Your task to perform on an android device: open app "Venmo" Image 0: 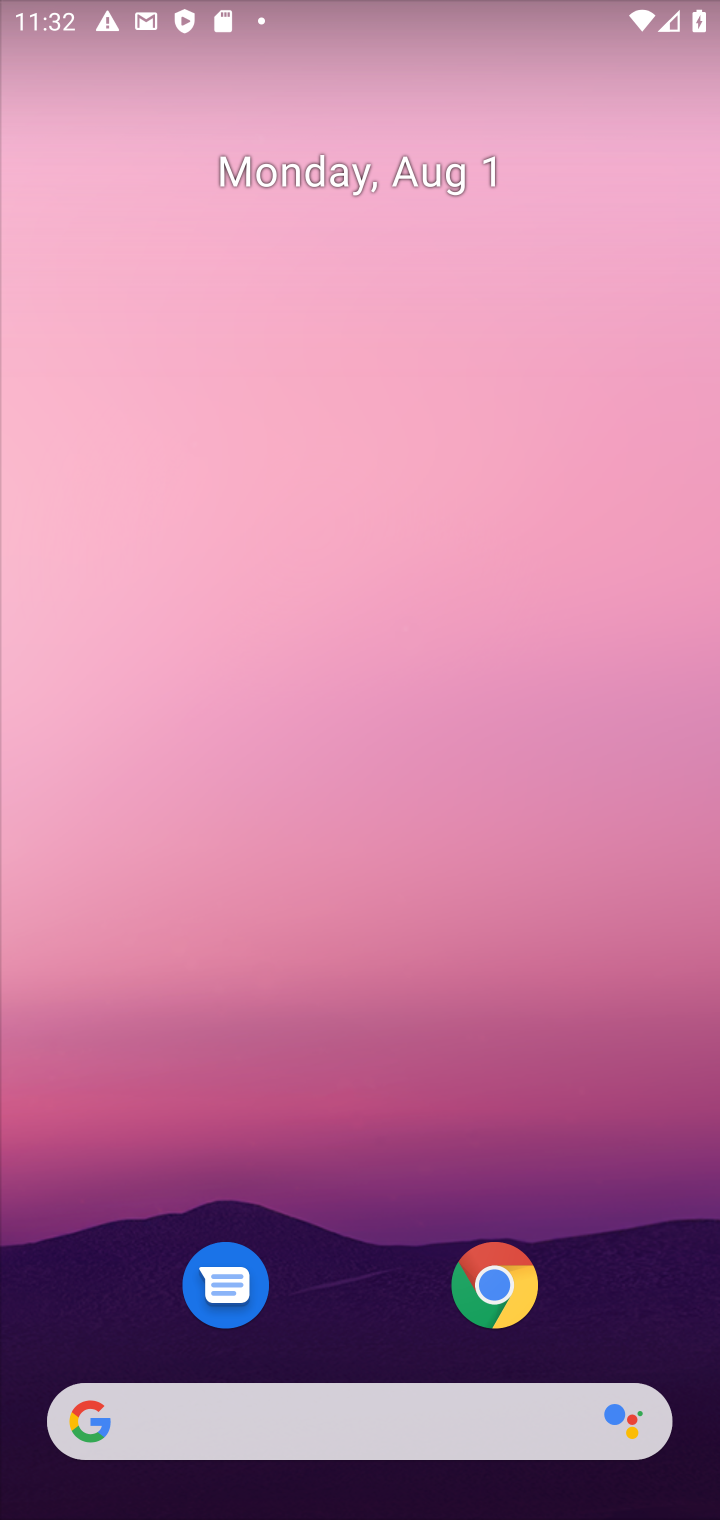
Step 0: drag from (358, 1309) to (449, 164)
Your task to perform on an android device: open app "Venmo" Image 1: 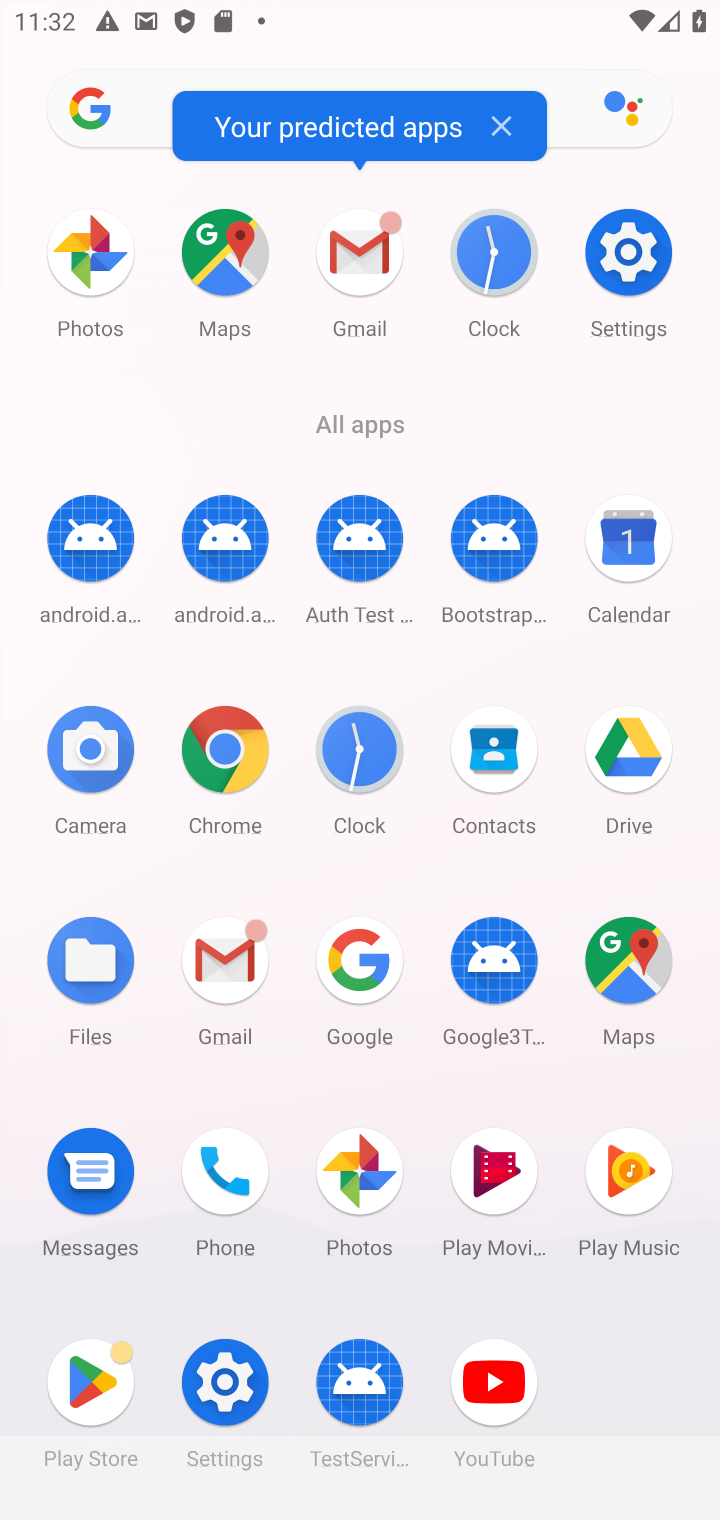
Step 1: click (105, 1365)
Your task to perform on an android device: open app "Venmo" Image 2: 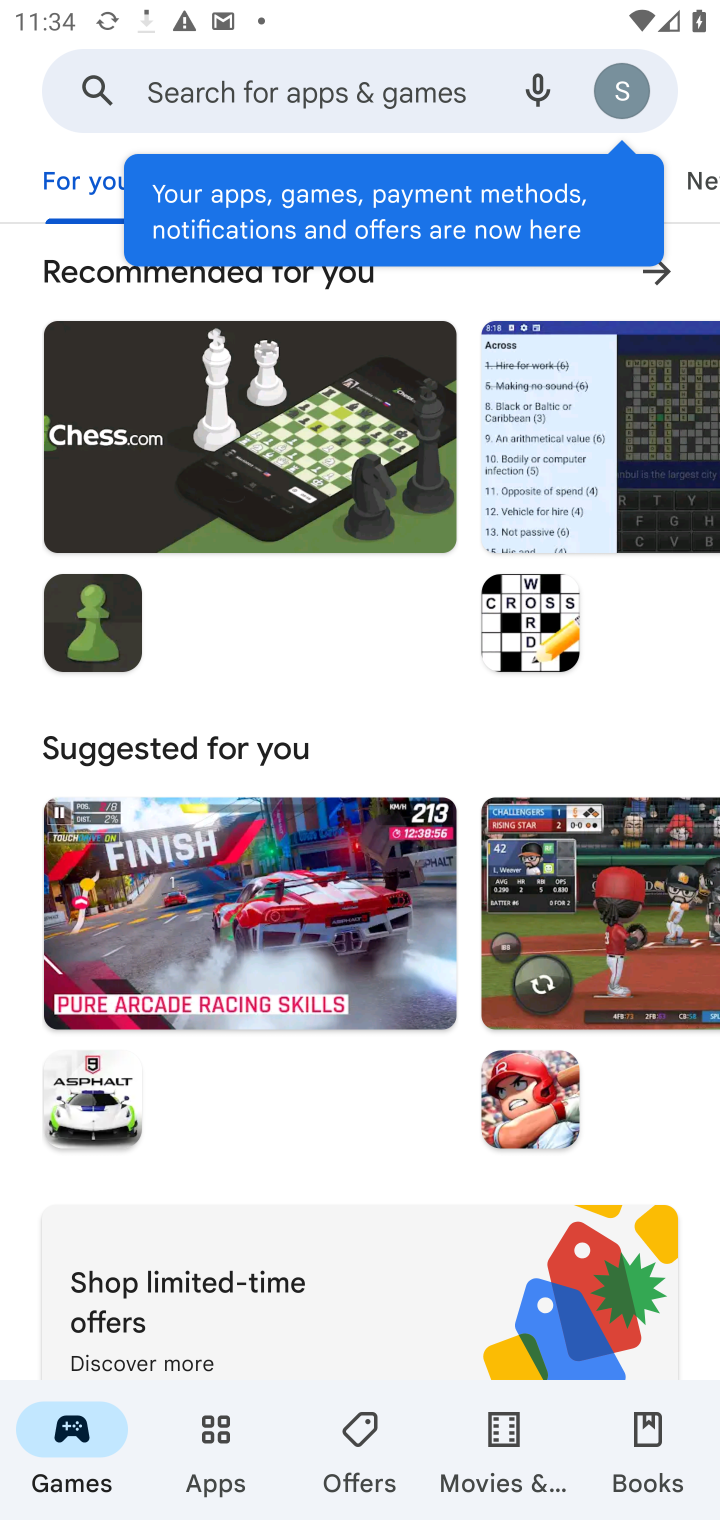
Step 2: click (231, 107)
Your task to perform on an android device: open app "Venmo" Image 3: 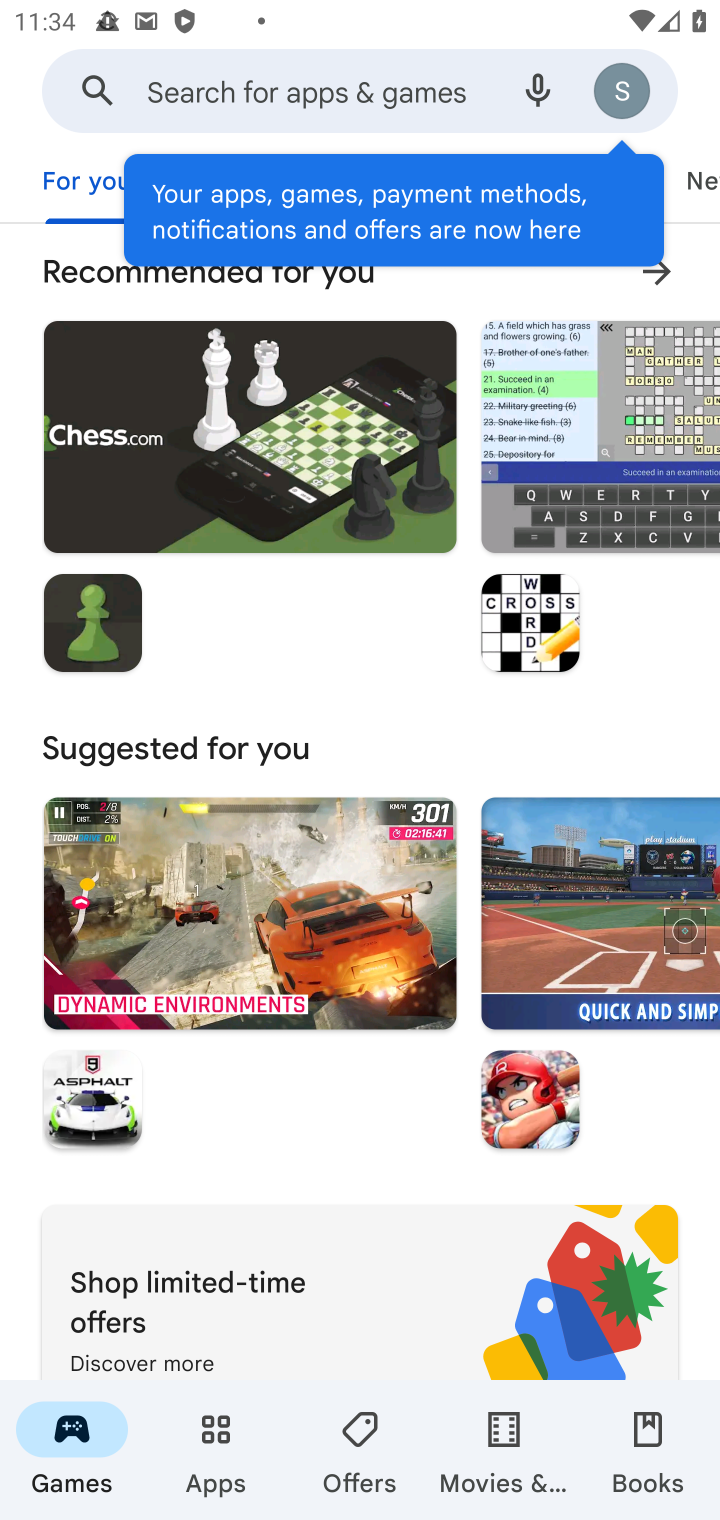
Step 3: click (228, 107)
Your task to perform on an android device: open app "Venmo" Image 4: 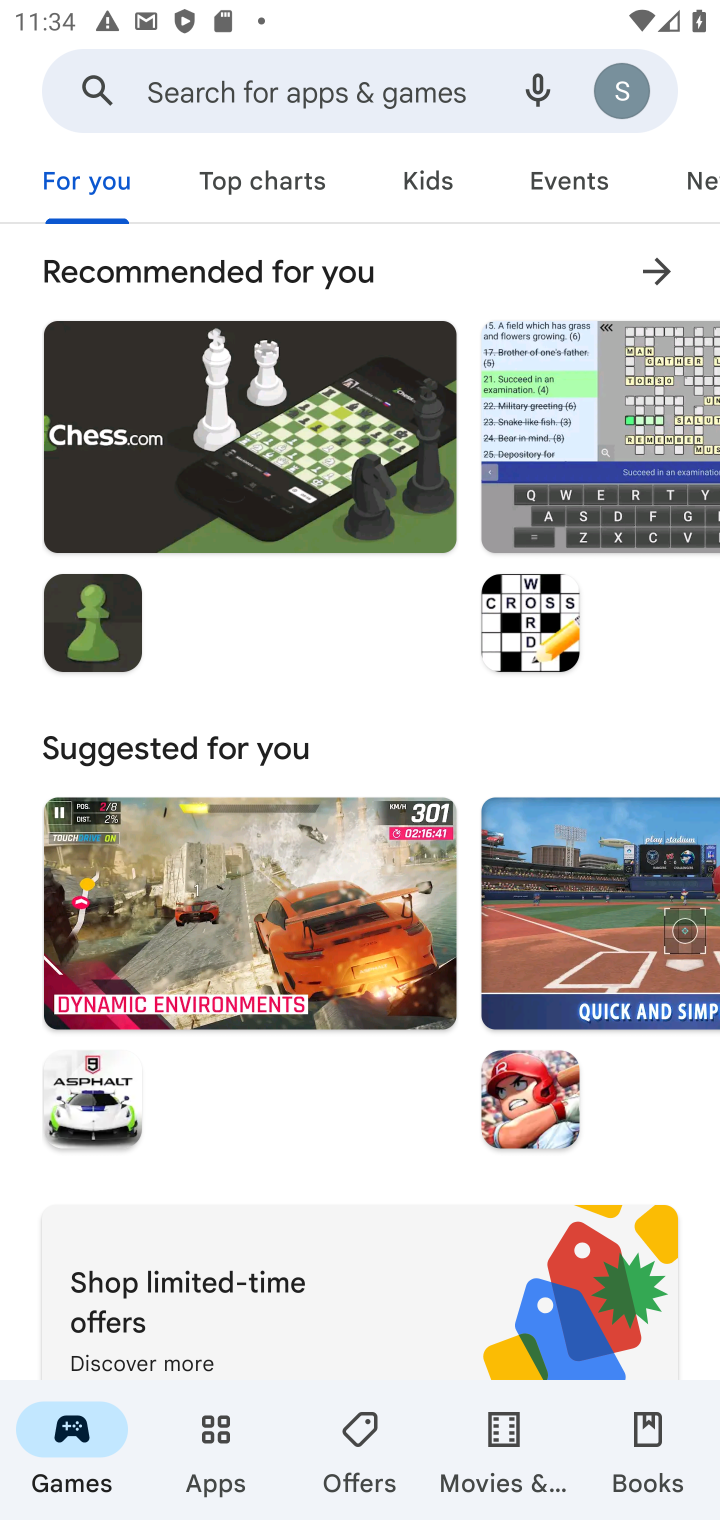
Step 4: click (200, 85)
Your task to perform on an android device: open app "Venmo" Image 5: 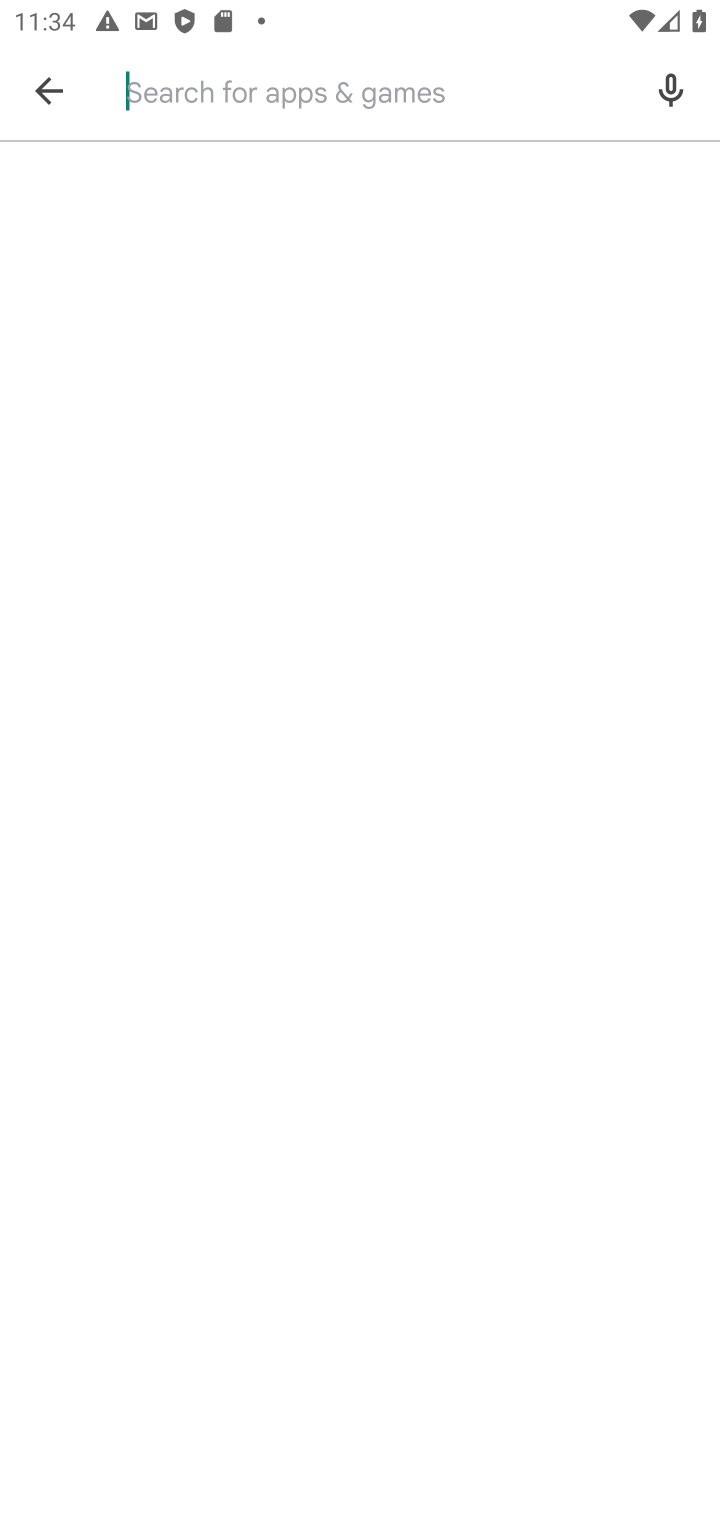
Step 5: click (200, 85)
Your task to perform on an android device: open app "Venmo" Image 6: 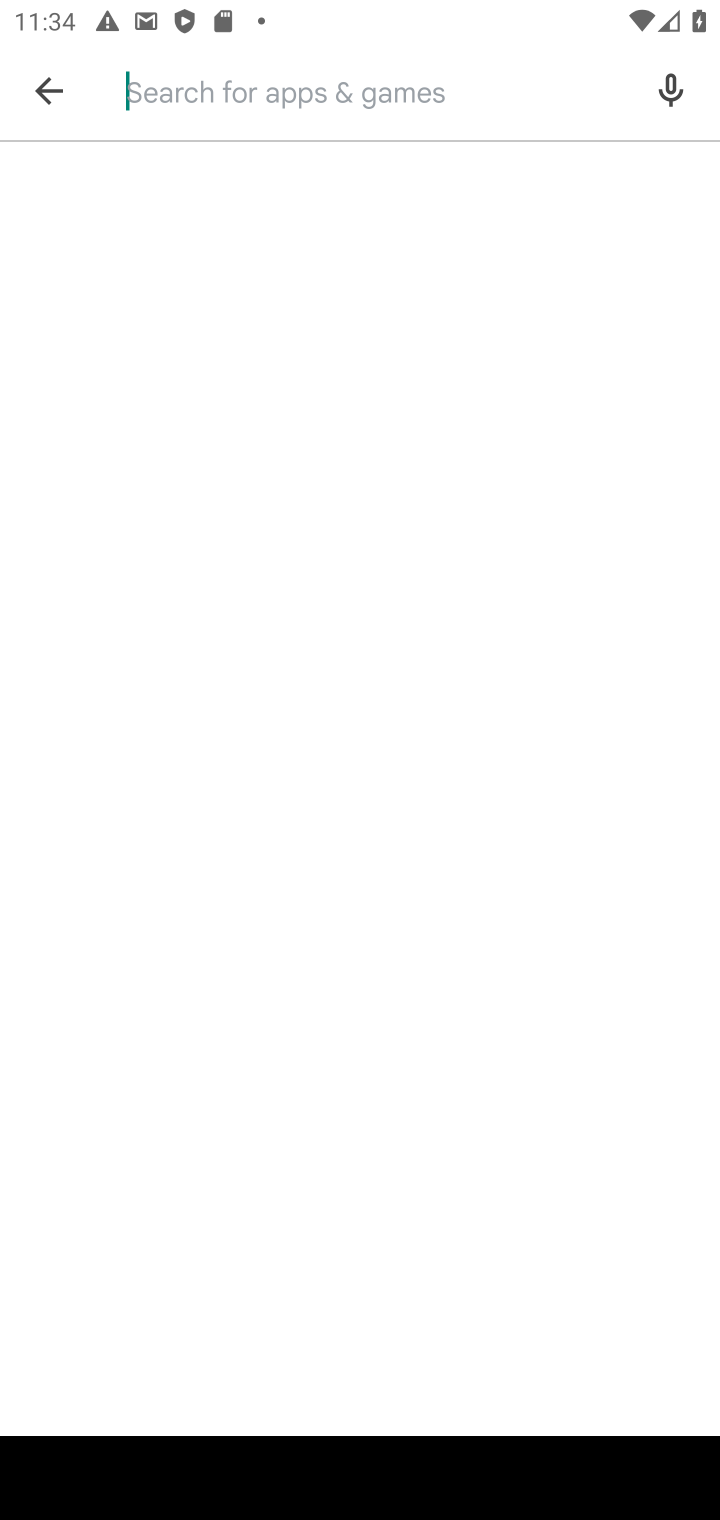
Step 6: type ""
Your task to perform on an android device: open app "Venmo" Image 7: 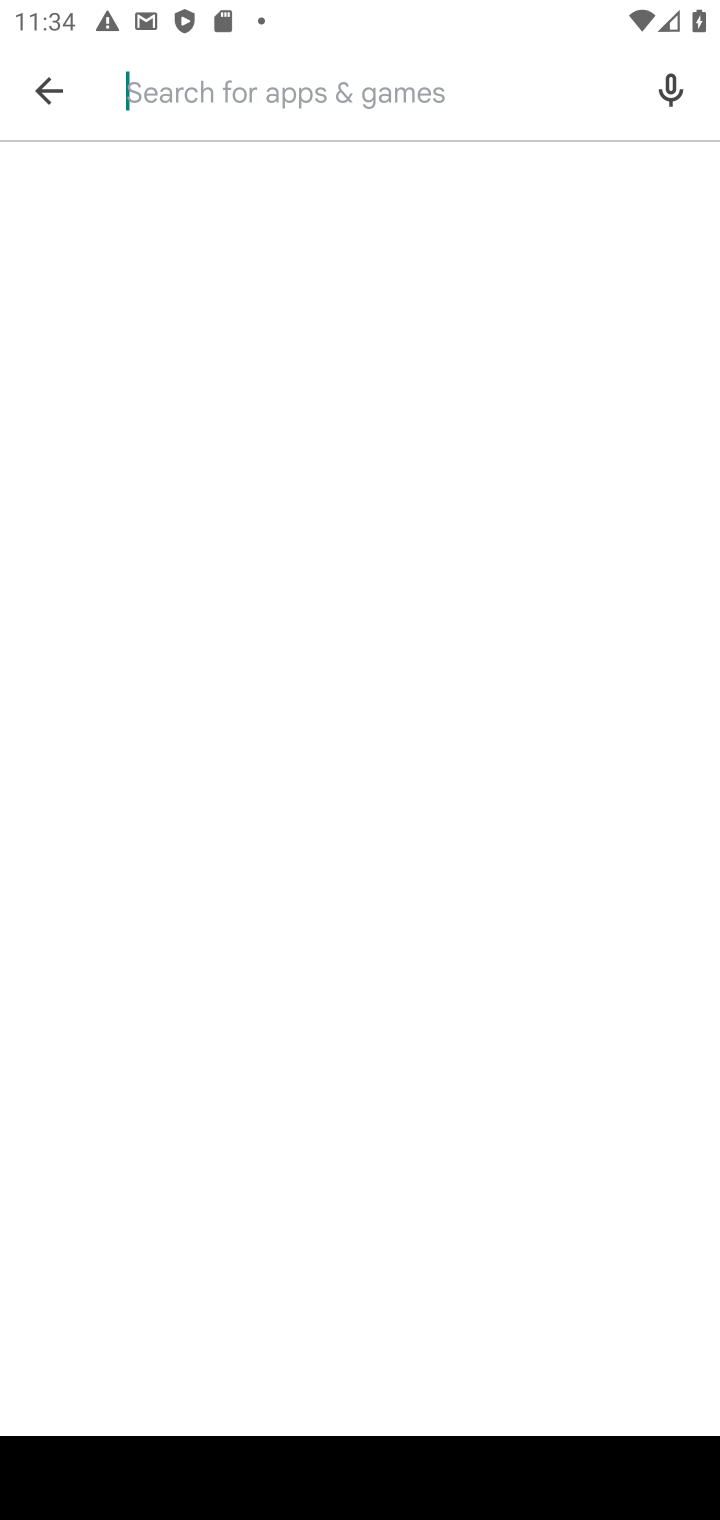
Step 7: type "Venmo"
Your task to perform on an android device: open app "Venmo" Image 8: 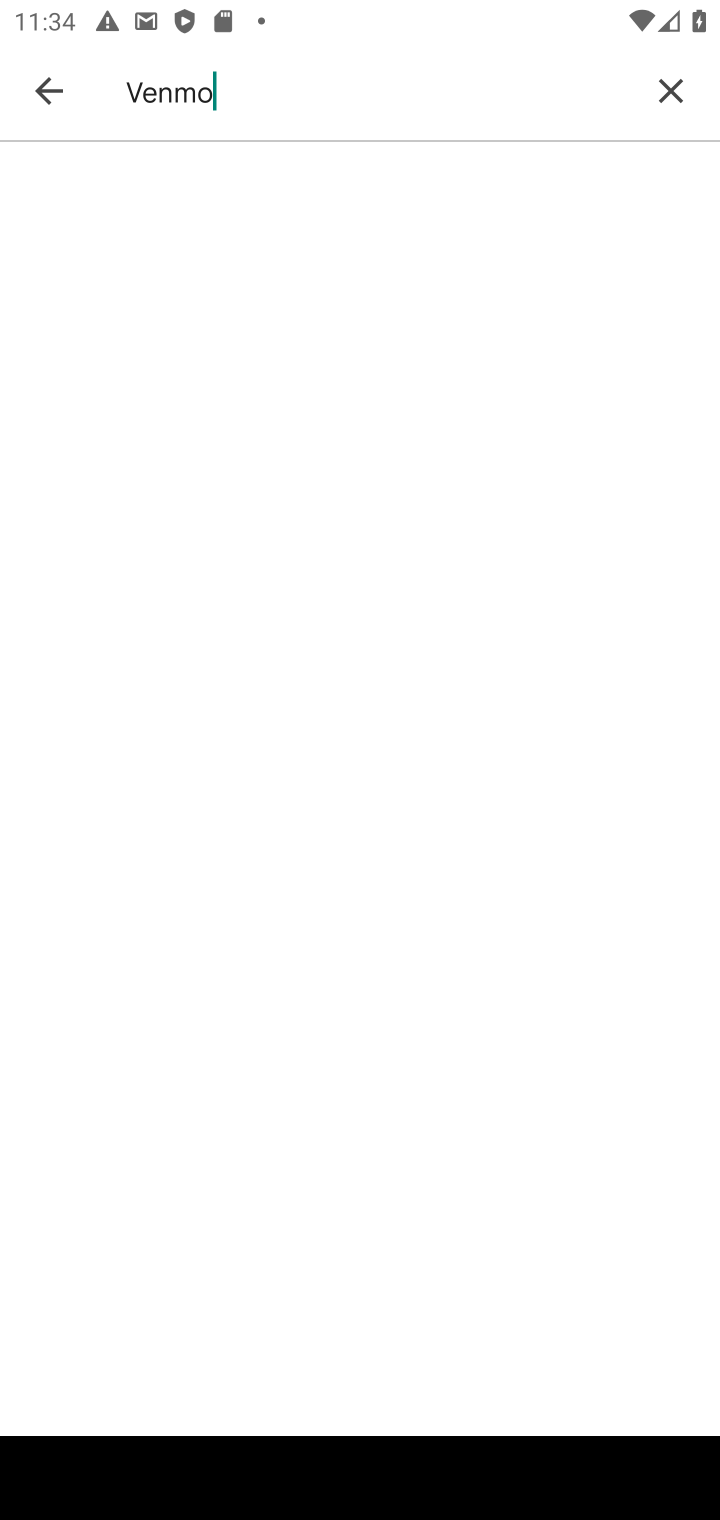
Step 8: type ""
Your task to perform on an android device: open app "Venmo" Image 9: 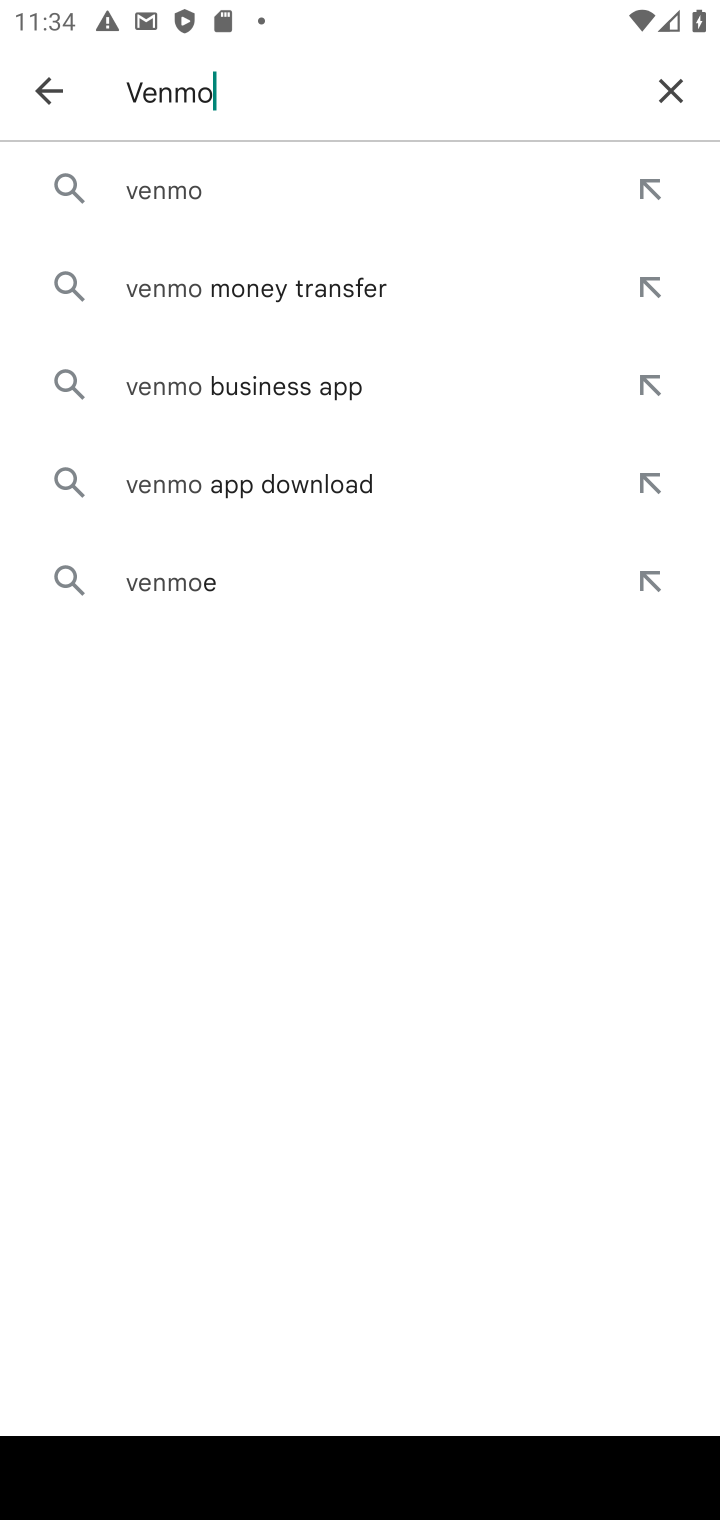
Step 9: click (149, 179)
Your task to perform on an android device: open app "Venmo" Image 10: 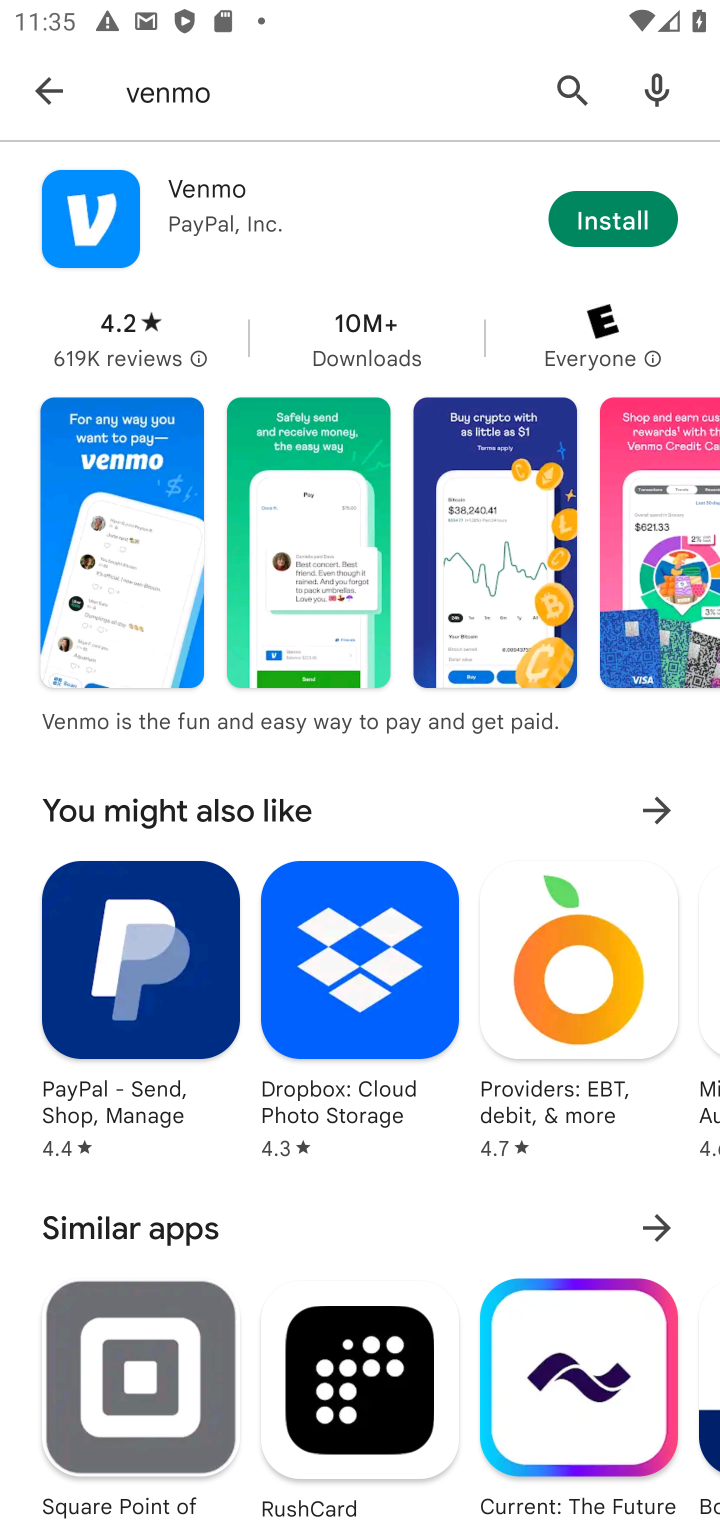
Step 10: task complete